Your task to perform on an android device: Show me productivity apps on the Play Store Image 0: 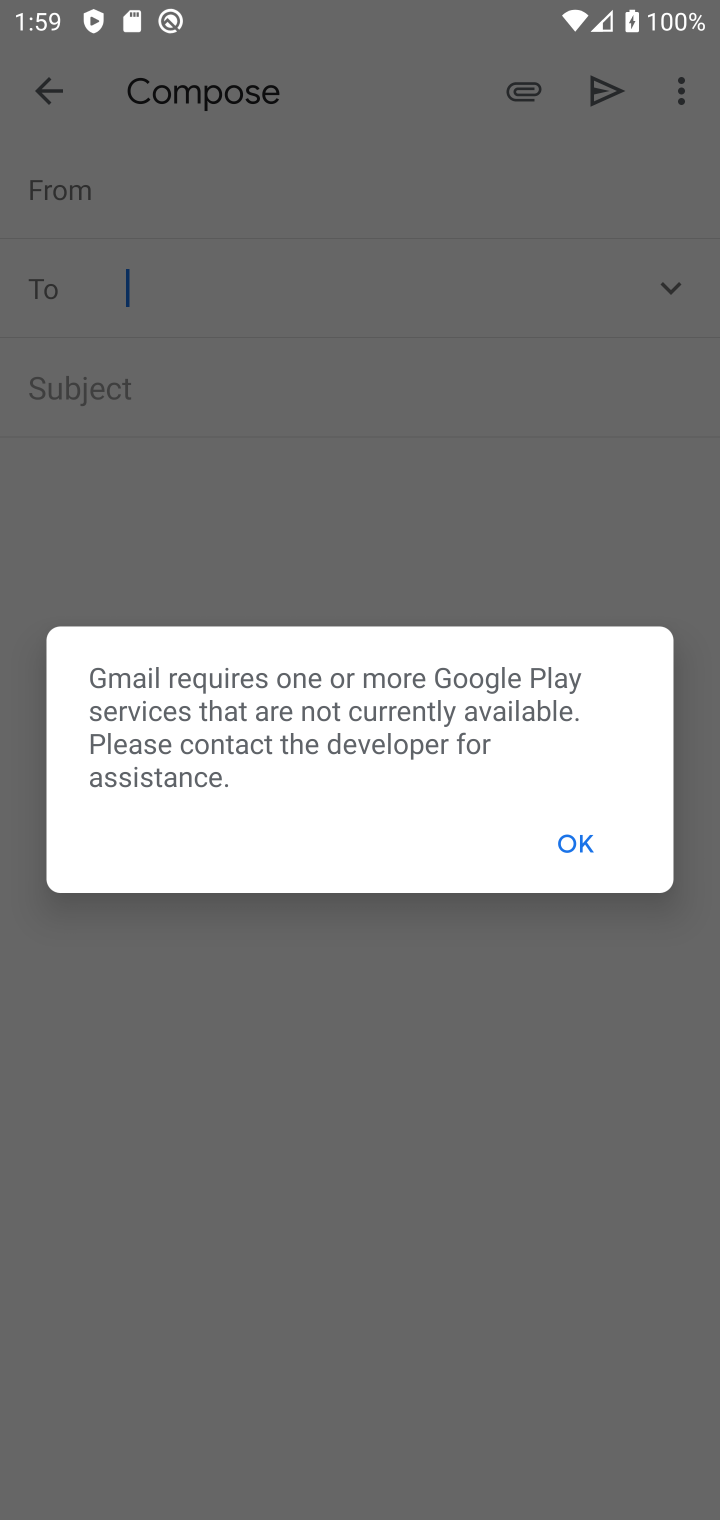
Step 0: click (33, 106)
Your task to perform on an android device: Show me productivity apps on the Play Store Image 1: 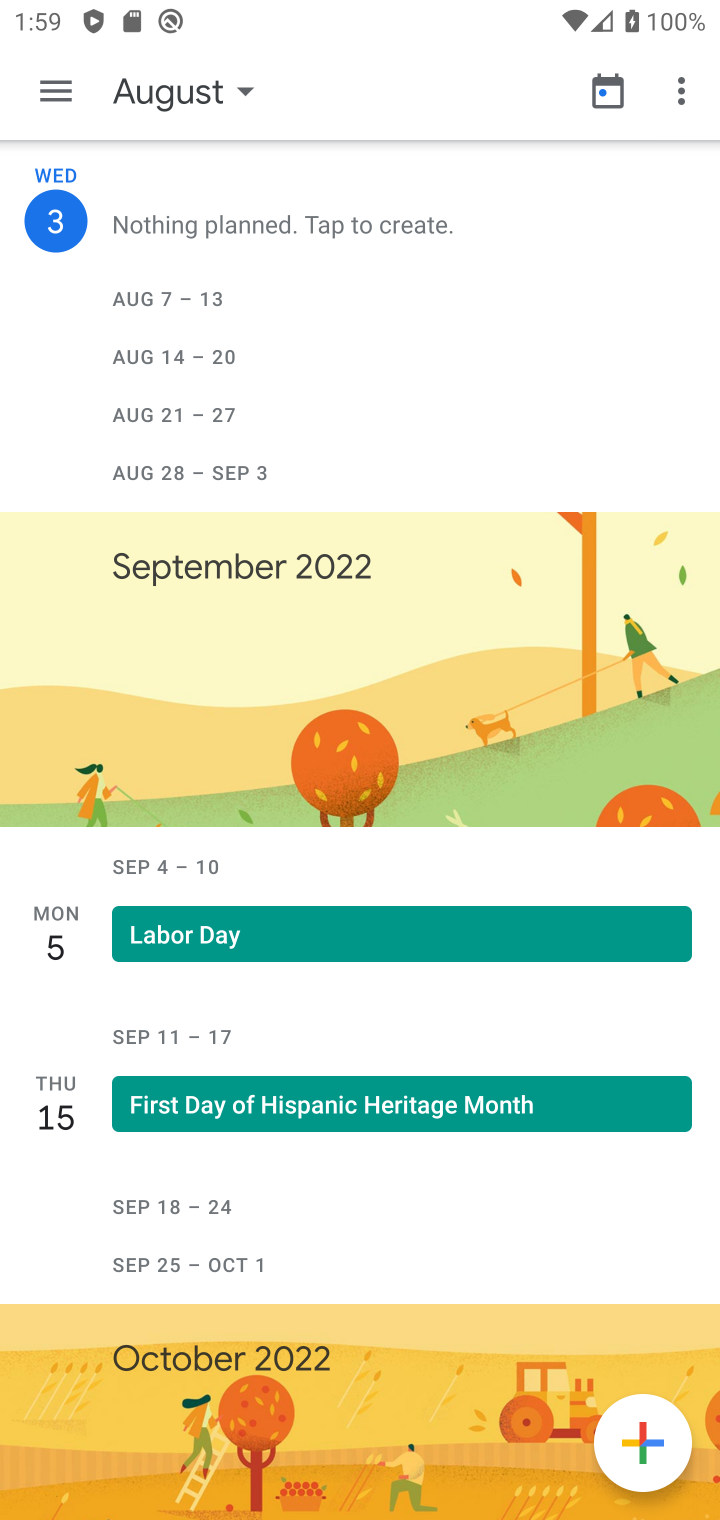
Step 1: press back button
Your task to perform on an android device: Show me productivity apps on the Play Store Image 2: 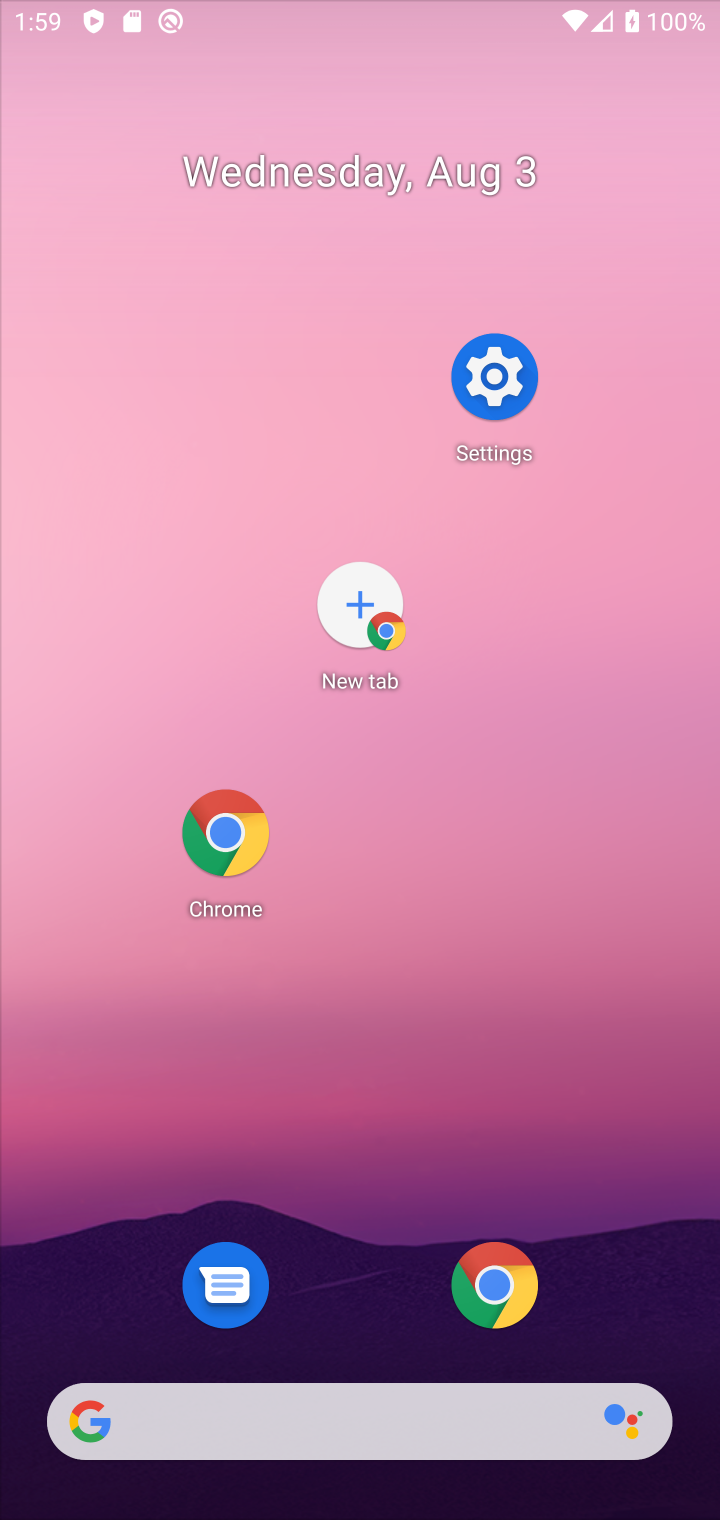
Step 2: press home button
Your task to perform on an android device: Show me productivity apps on the Play Store Image 3: 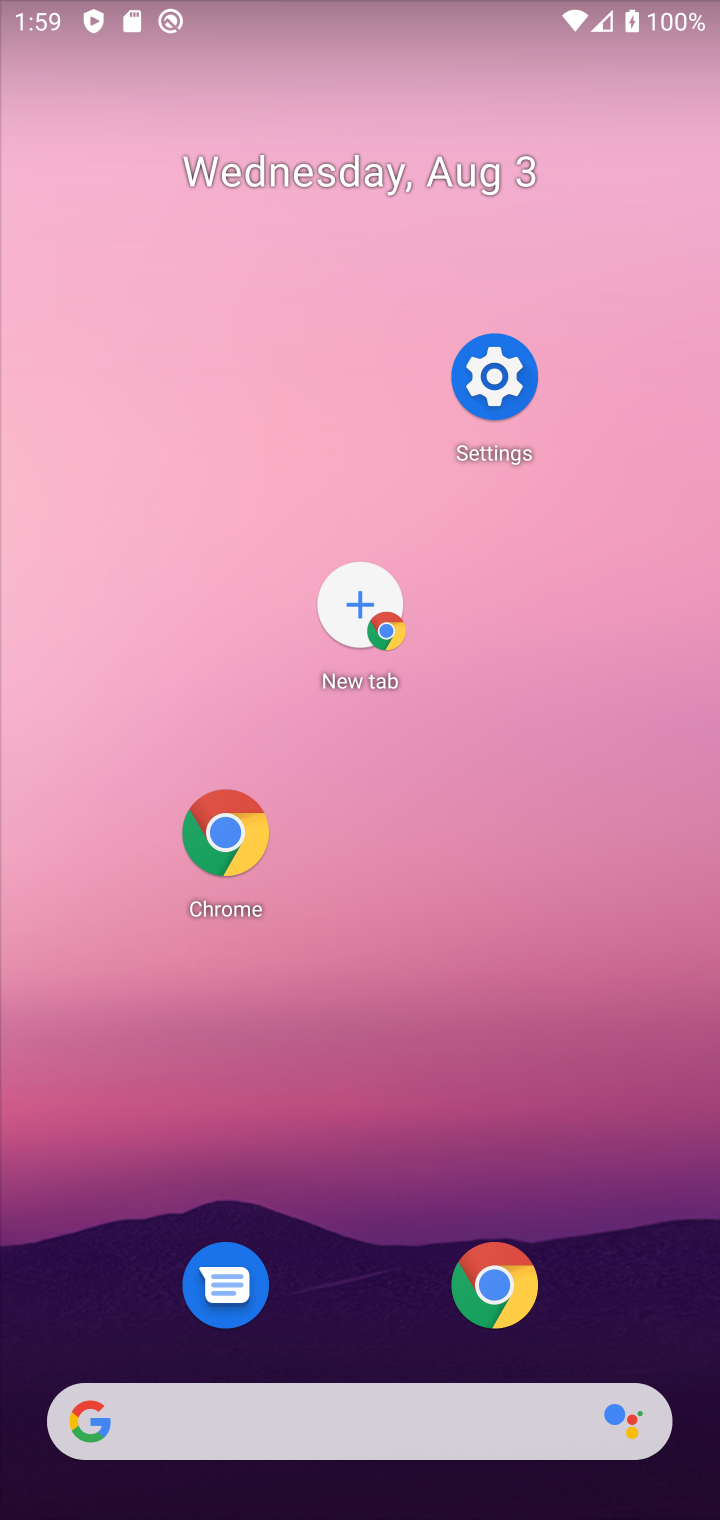
Step 3: click (230, 379)
Your task to perform on an android device: Show me productivity apps on the Play Store Image 4: 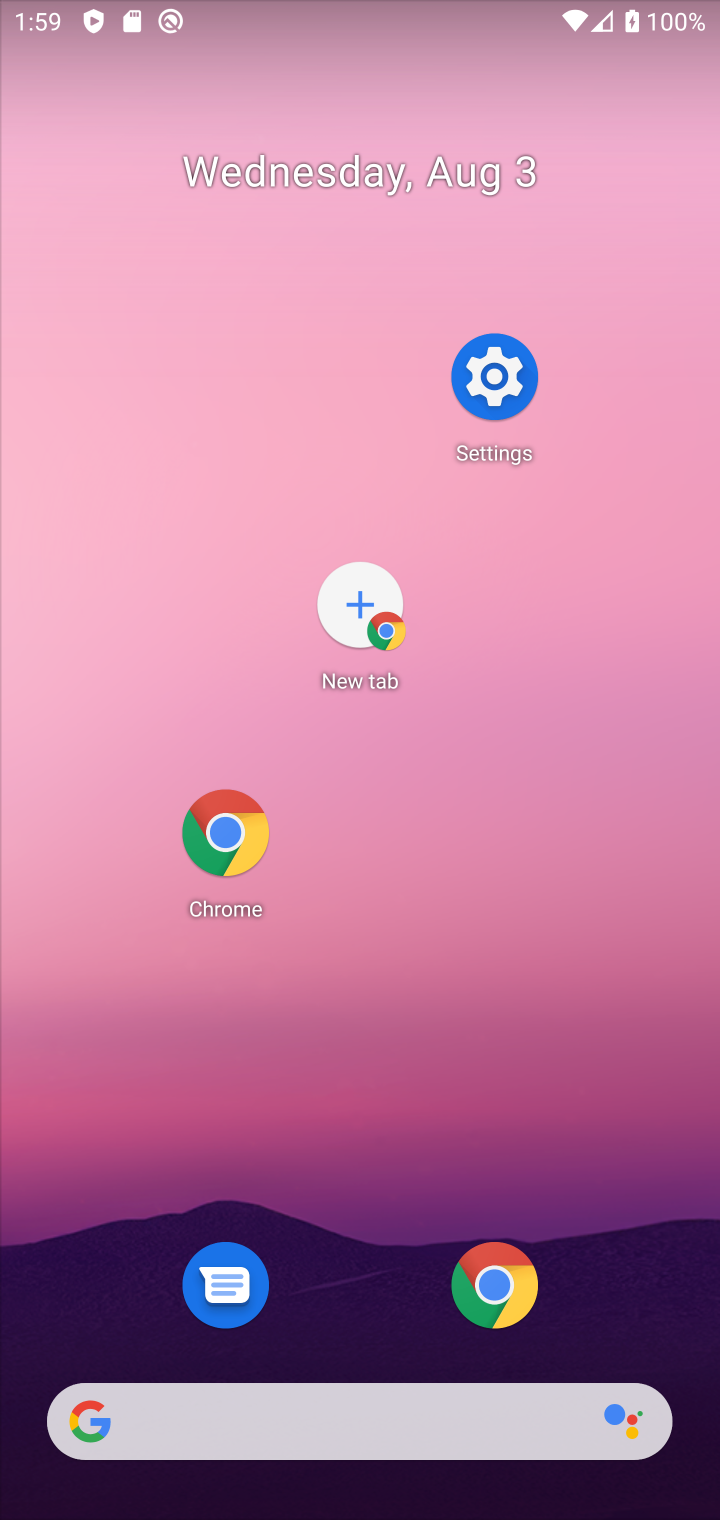
Step 4: drag from (403, 826) to (295, 396)
Your task to perform on an android device: Show me productivity apps on the Play Store Image 5: 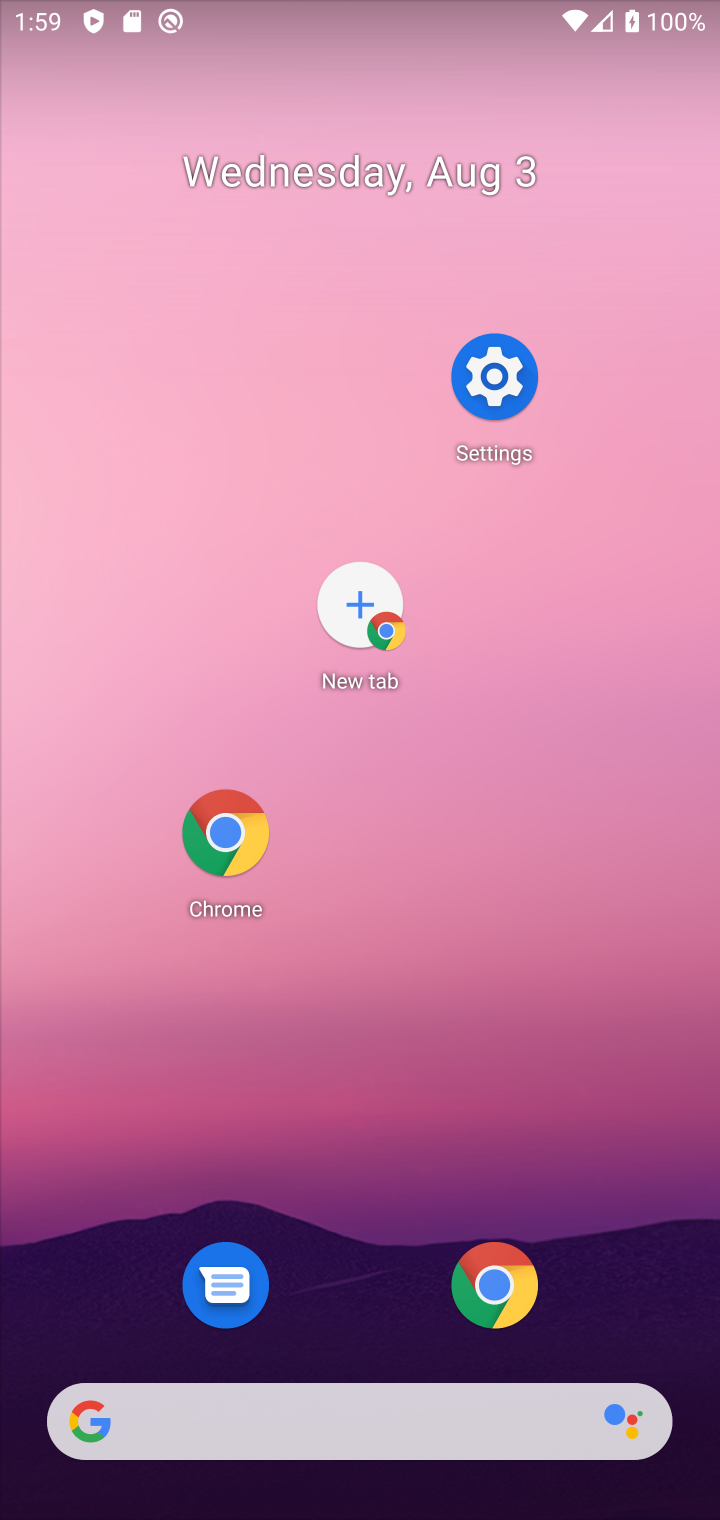
Step 5: drag from (264, 230) to (261, 331)
Your task to perform on an android device: Show me productivity apps on the Play Store Image 6: 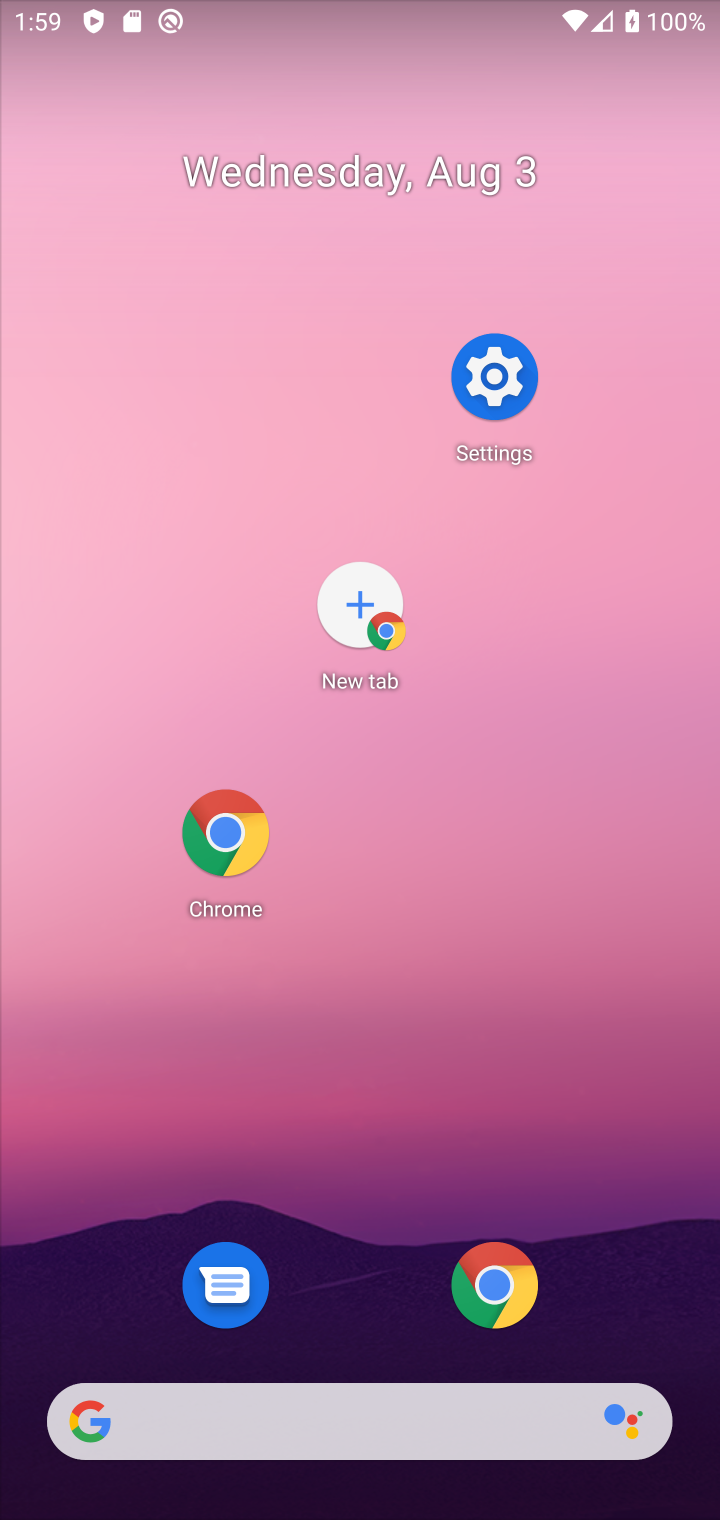
Step 6: drag from (330, 371) to (348, 496)
Your task to perform on an android device: Show me productivity apps on the Play Store Image 7: 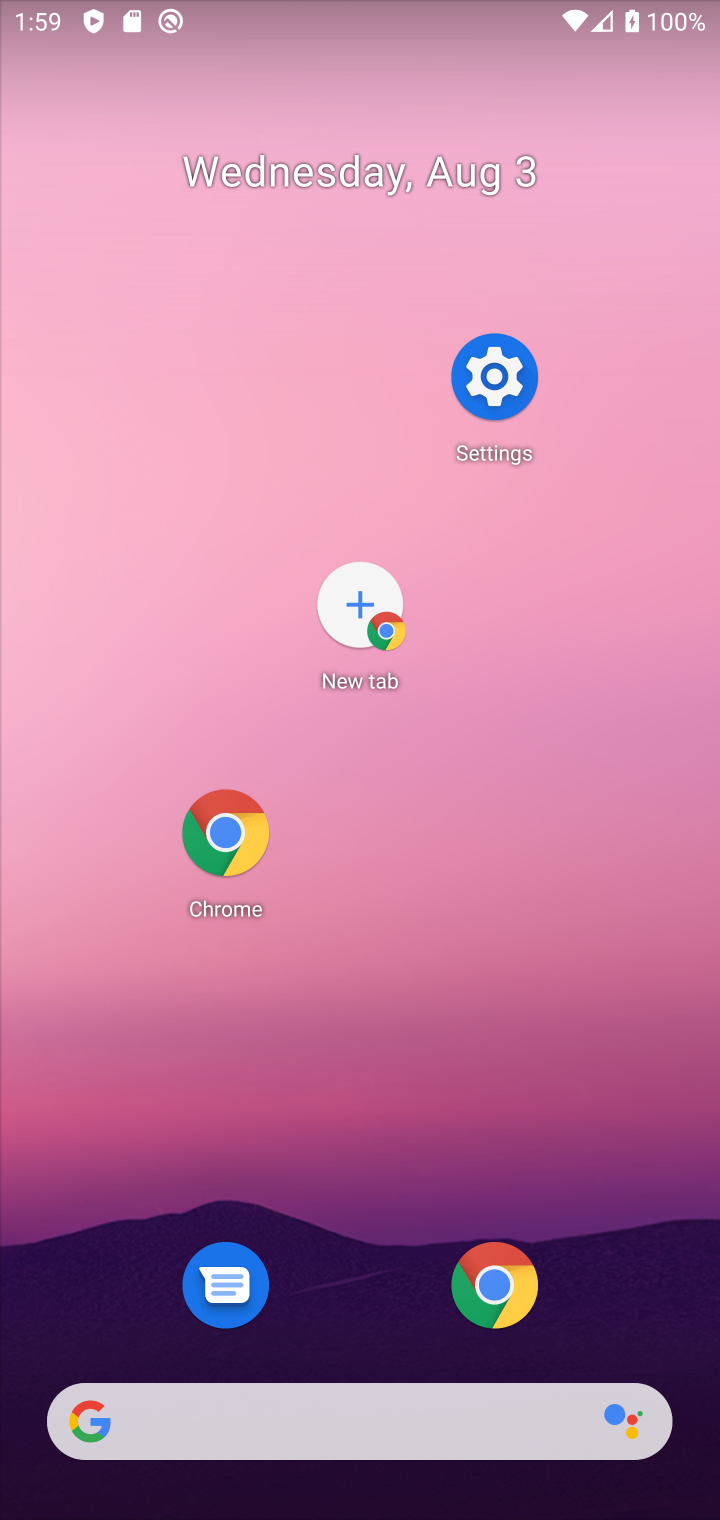
Step 7: drag from (353, 1055) to (286, 732)
Your task to perform on an android device: Show me productivity apps on the Play Store Image 8: 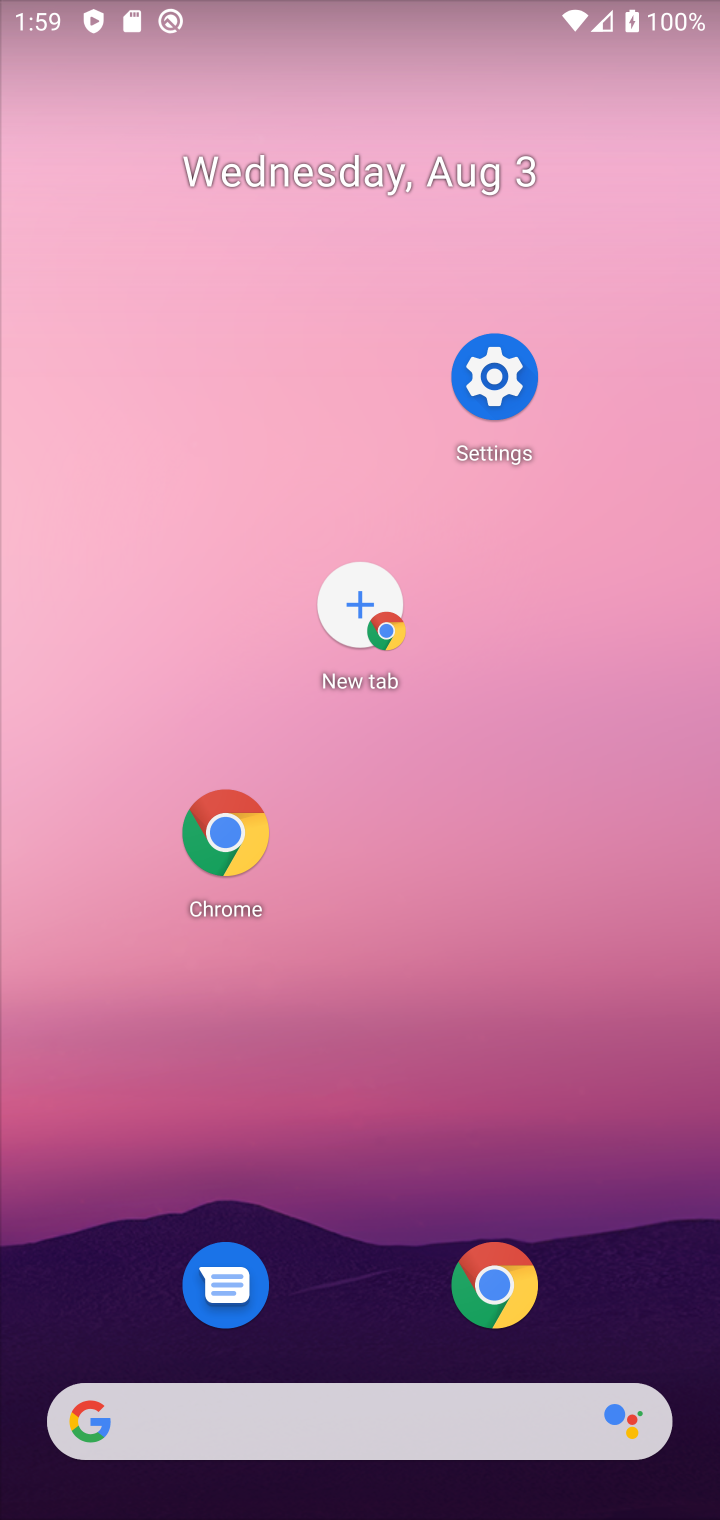
Step 8: drag from (296, 744) to (211, 358)
Your task to perform on an android device: Show me productivity apps on the Play Store Image 9: 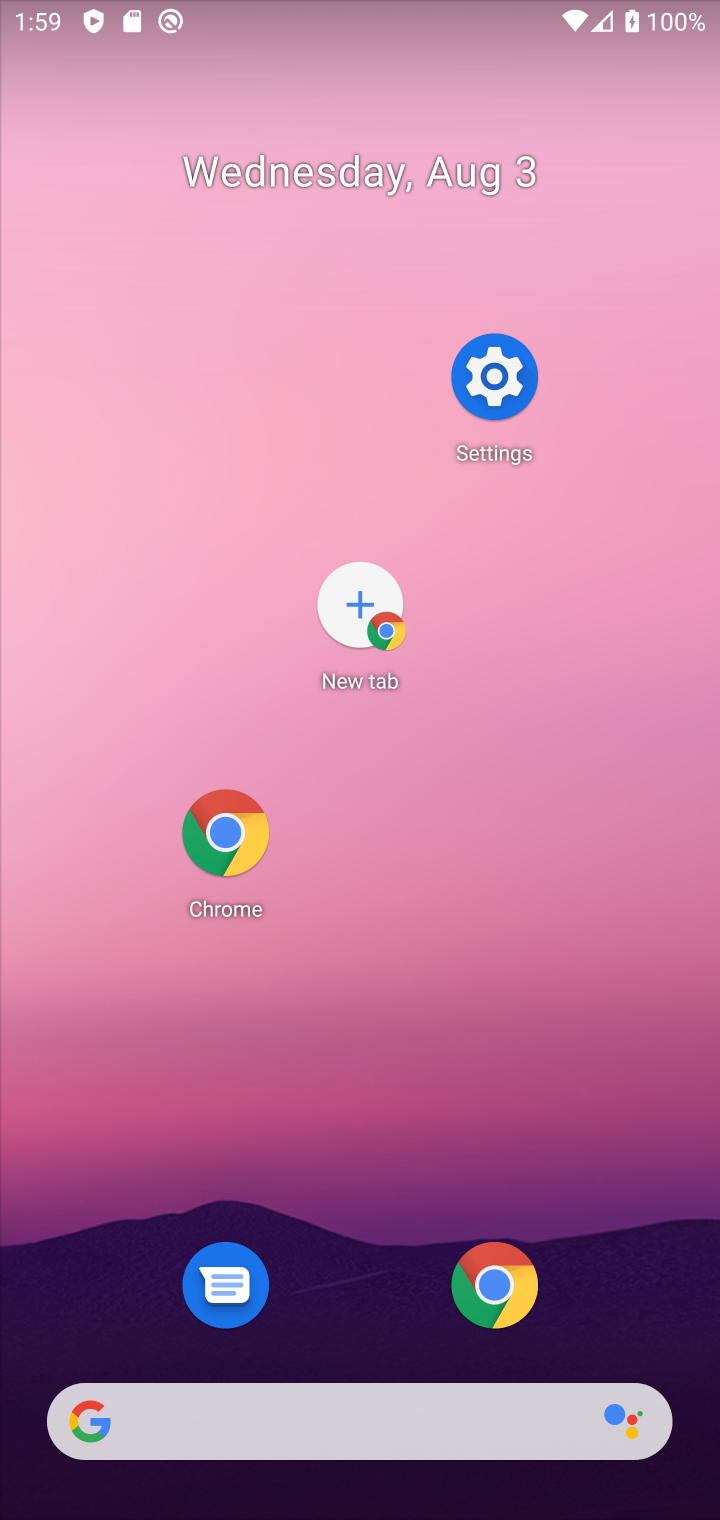
Step 9: drag from (336, 1063) to (194, 301)
Your task to perform on an android device: Show me productivity apps on the Play Store Image 10: 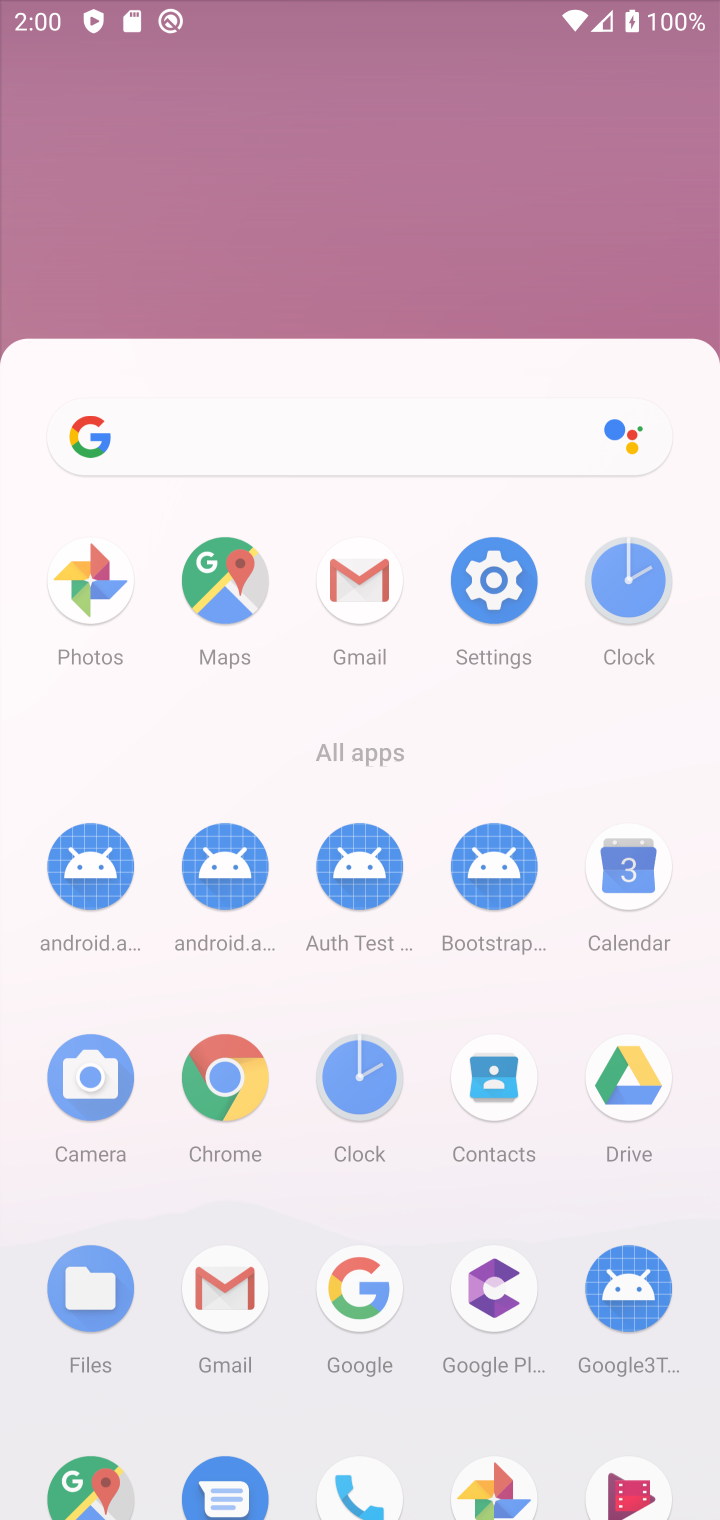
Step 10: click (264, 367)
Your task to perform on an android device: Show me productivity apps on the Play Store Image 11: 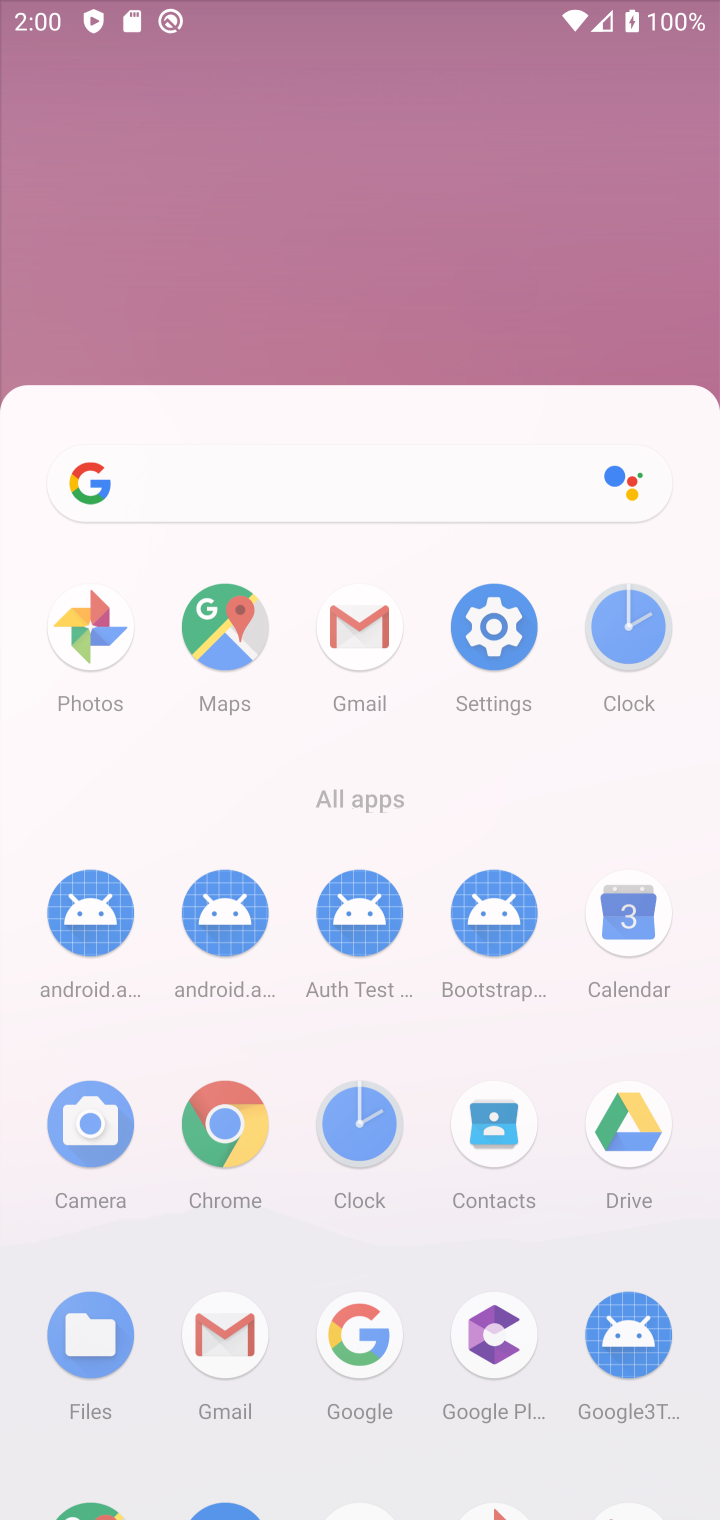
Step 11: drag from (377, 943) to (347, 510)
Your task to perform on an android device: Show me productivity apps on the Play Store Image 12: 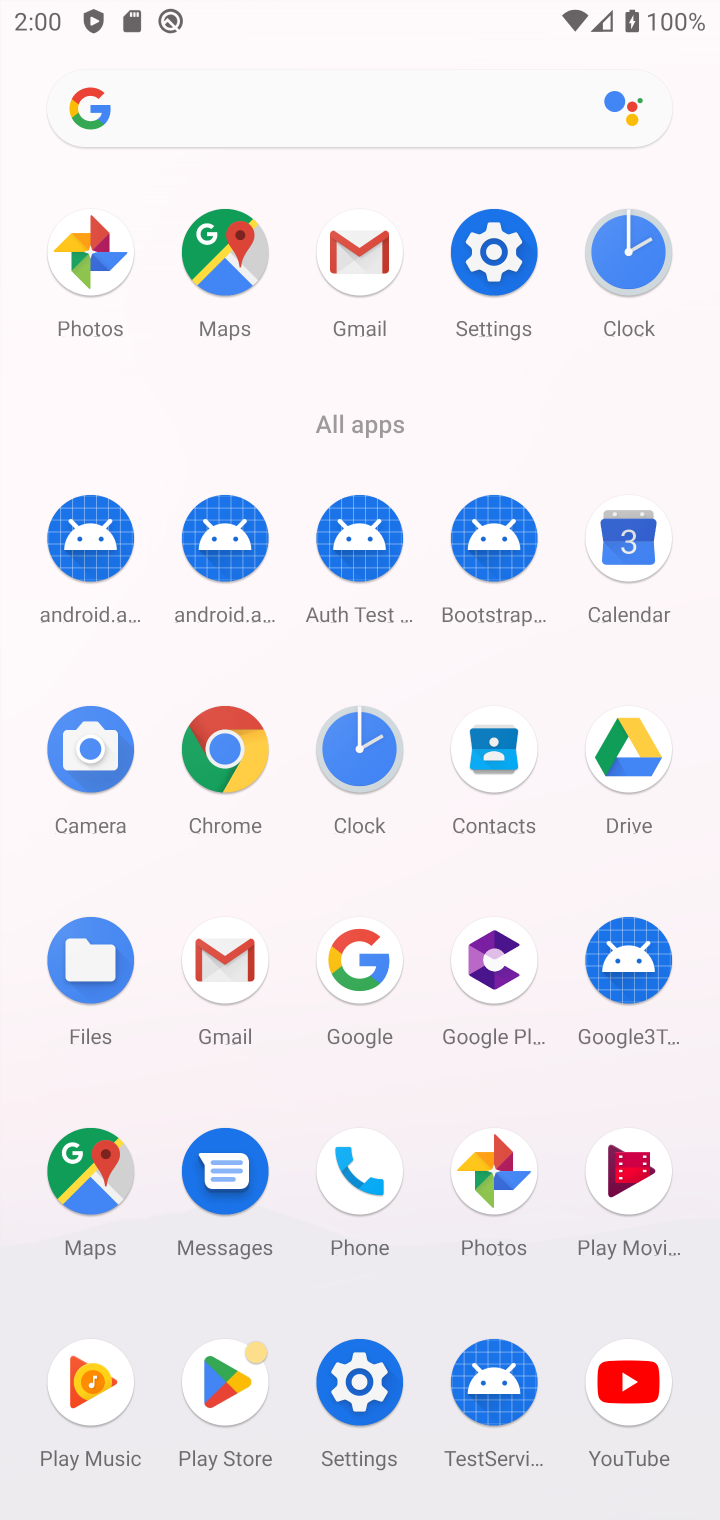
Step 12: click (214, 1412)
Your task to perform on an android device: Show me productivity apps on the Play Store Image 13: 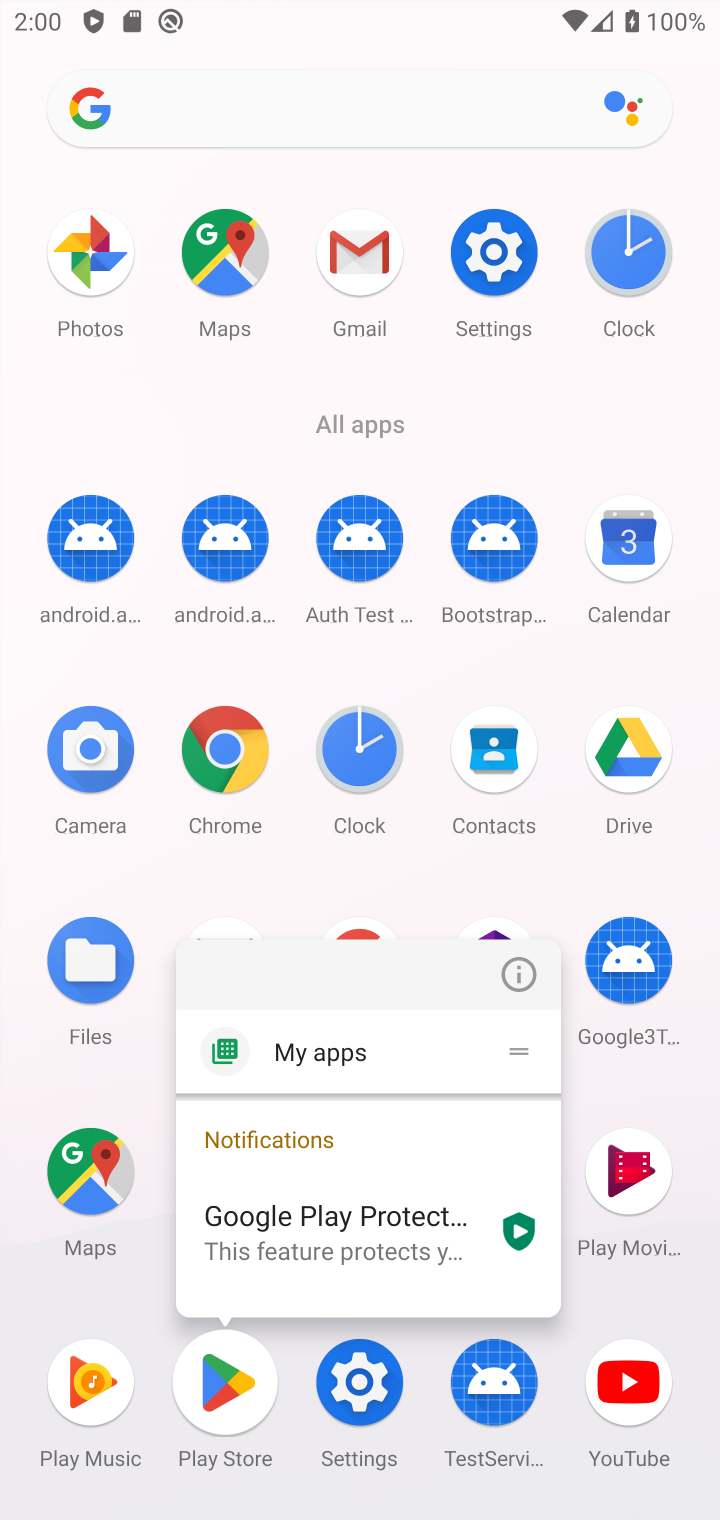
Step 13: click (216, 1410)
Your task to perform on an android device: Show me productivity apps on the Play Store Image 14: 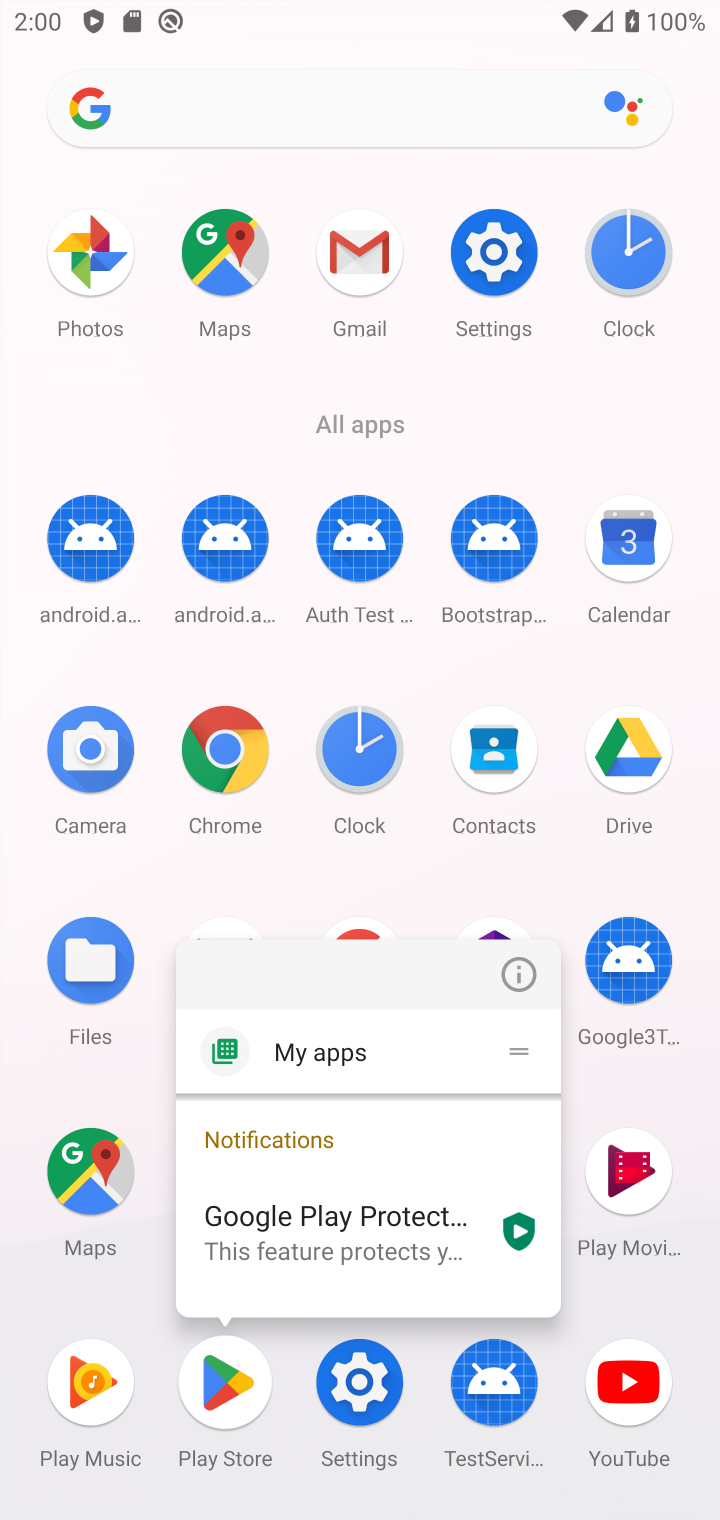
Step 14: click (230, 1406)
Your task to perform on an android device: Show me productivity apps on the Play Store Image 15: 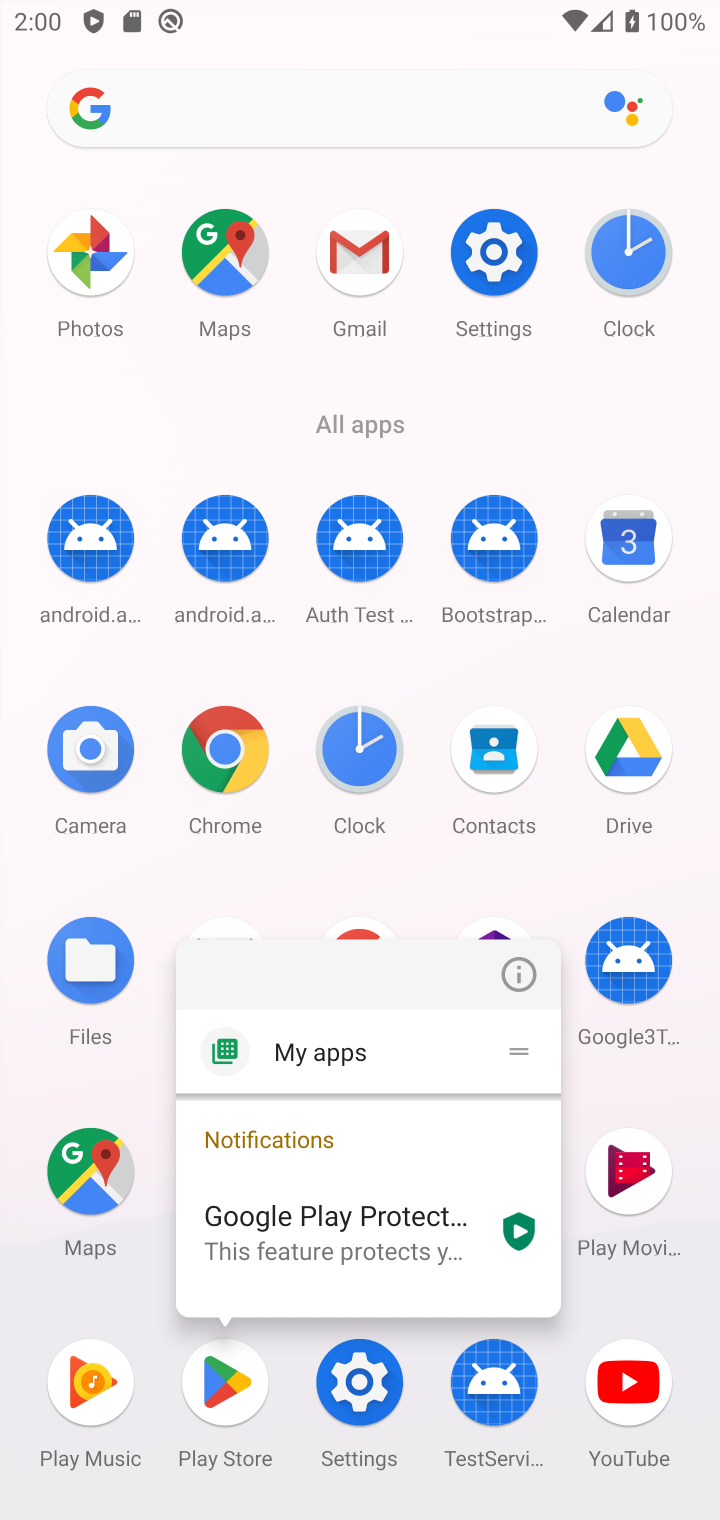
Step 15: click (228, 1404)
Your task to perform on an android device: Show me productivity apps on the Play Store Image 16: 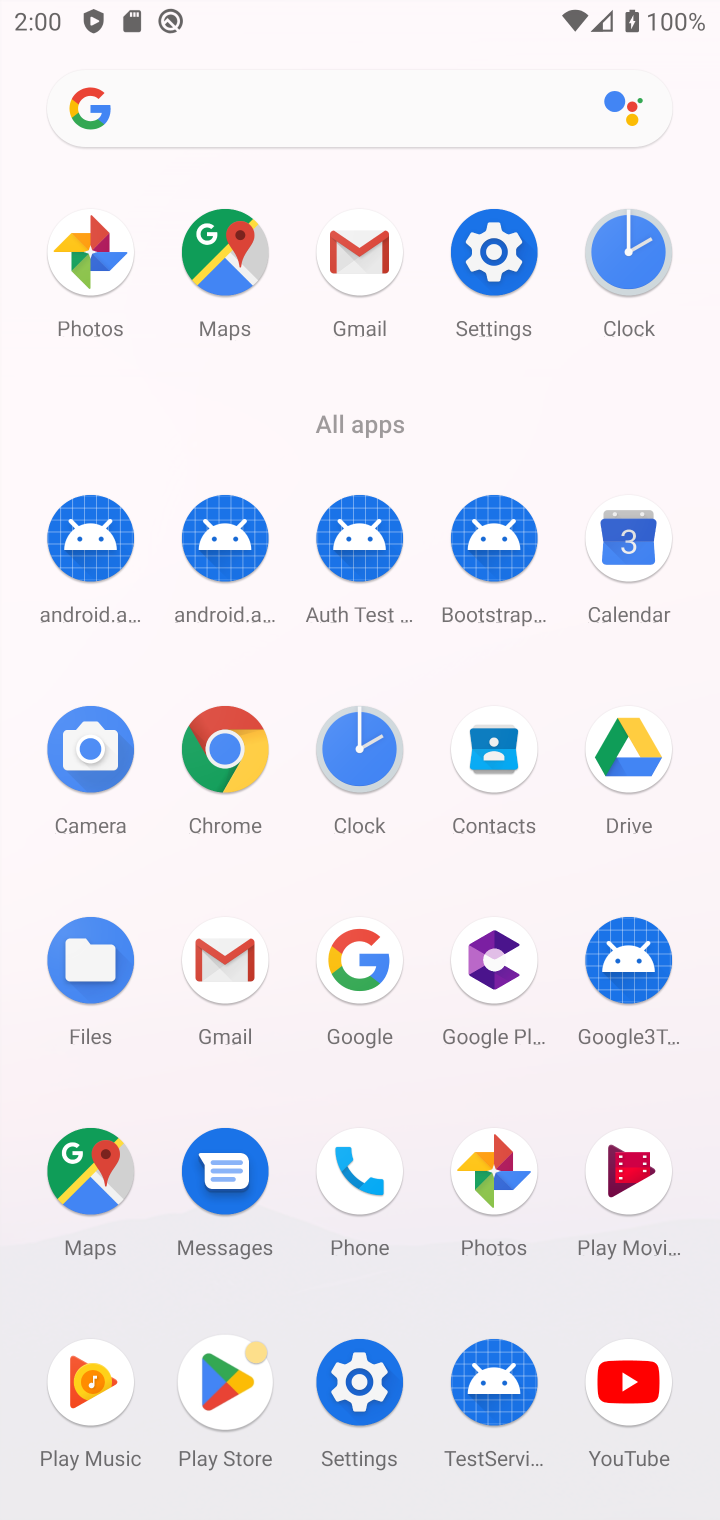
Step 16: click (219, 1416)
Your task to perform on an android device: Show me productivity apps on the Play Store Image 17: 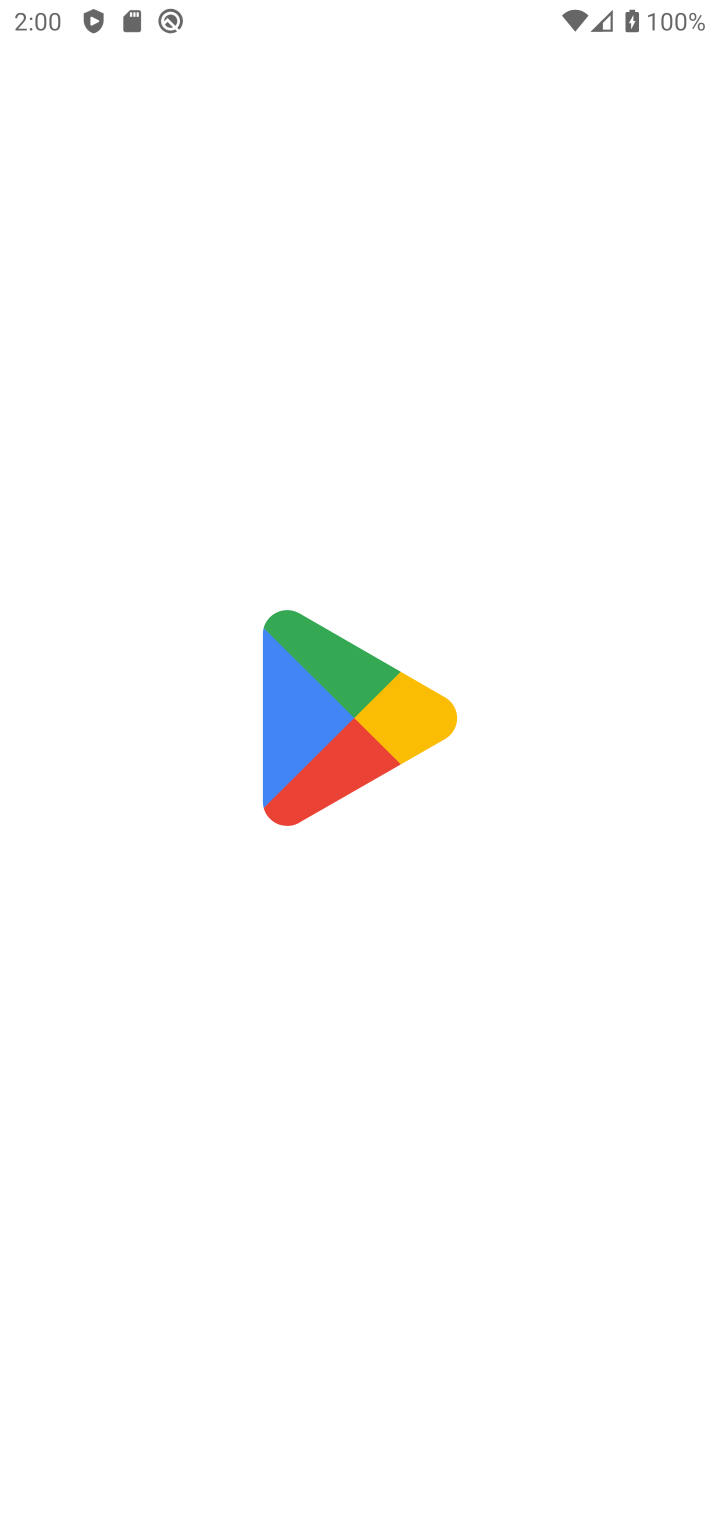
Step 17: click (219, 1416)
Your task to perform on an android device: Show me productivity apps on the Play Store Image 18: 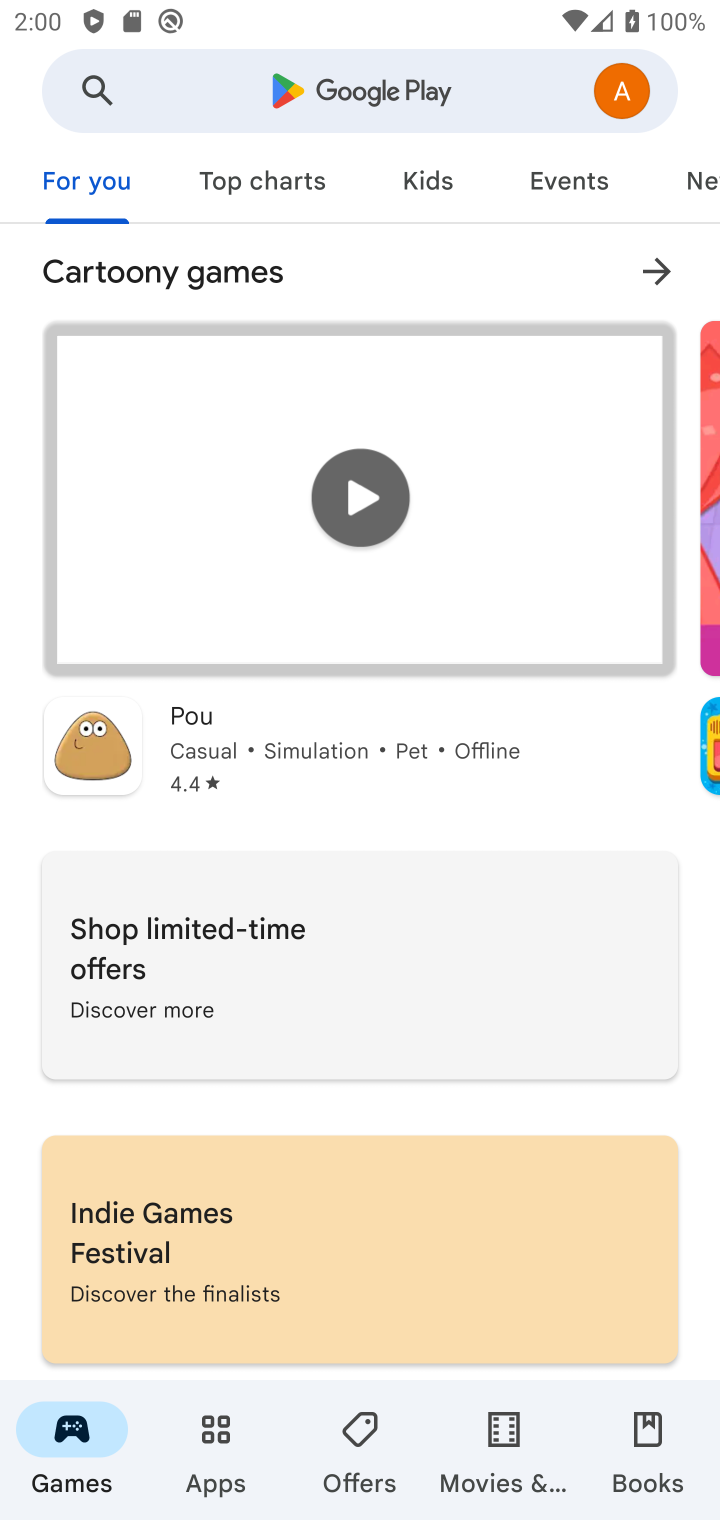
Step 18: click (352, 88)
Your task to perform on an android device: Show me productivity apps on the Play Store Image 19: 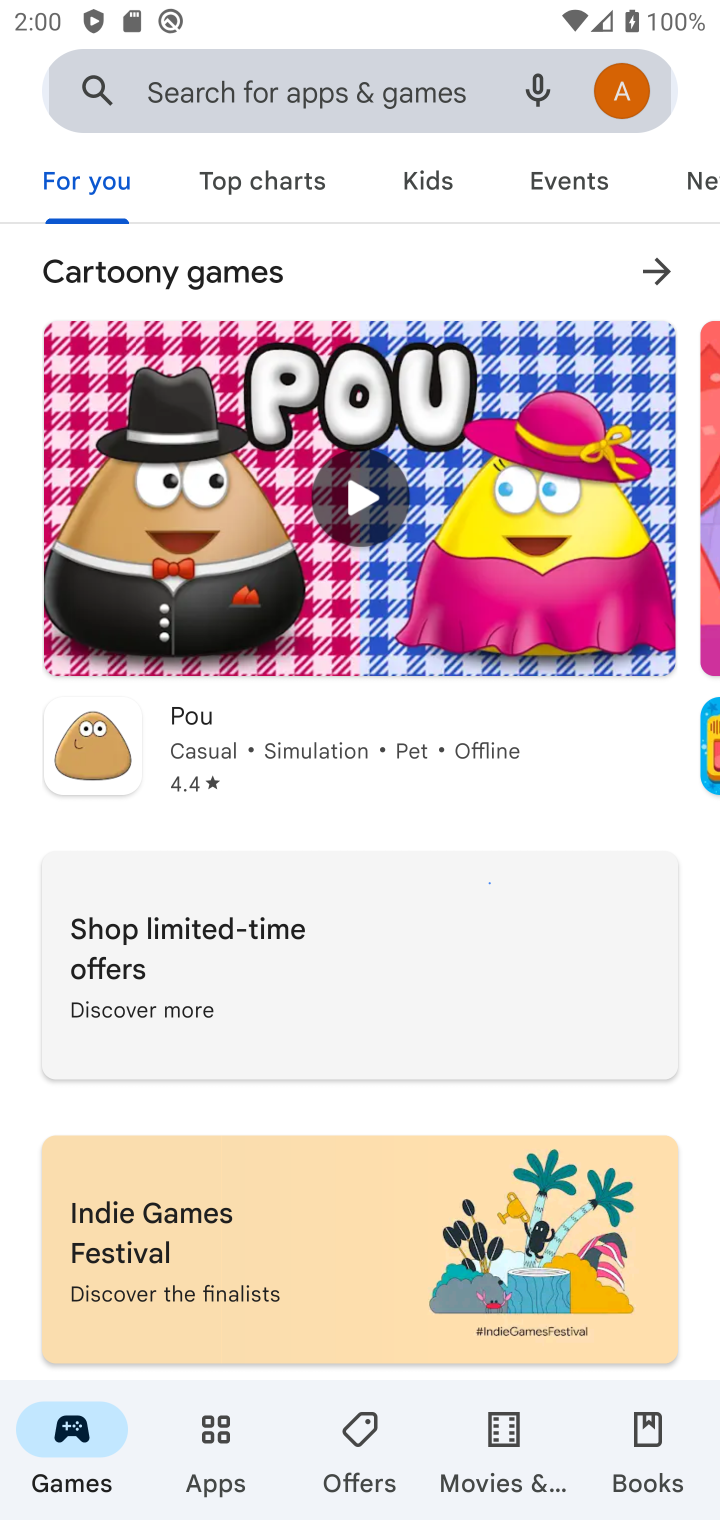
Step 19: click (346, 88)
Your task to perform on an android device: Show me productivity apps on the Play Store Image 20: 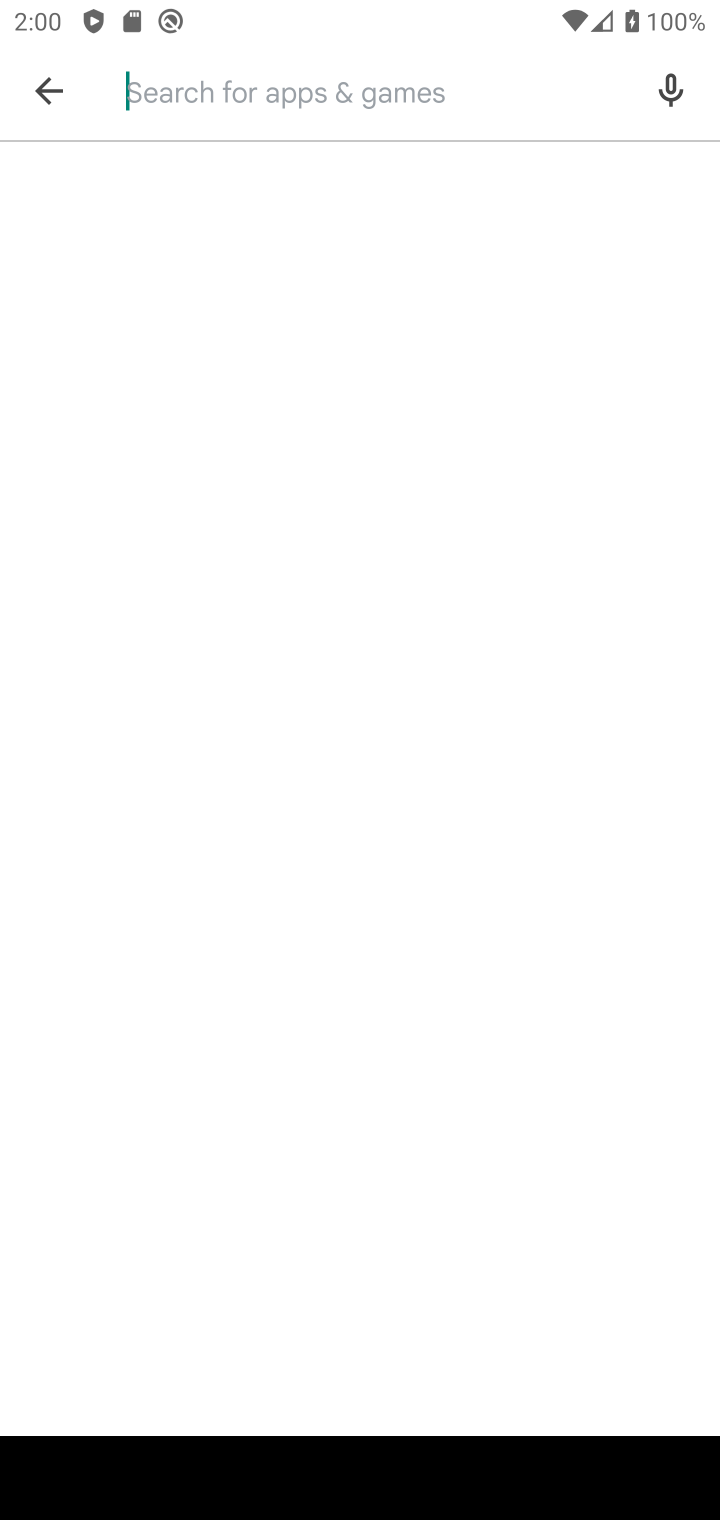
Step 20: type "productivity apps"
Your task to perform on an android device: Show me productivity apps on the Play Store Image 21: 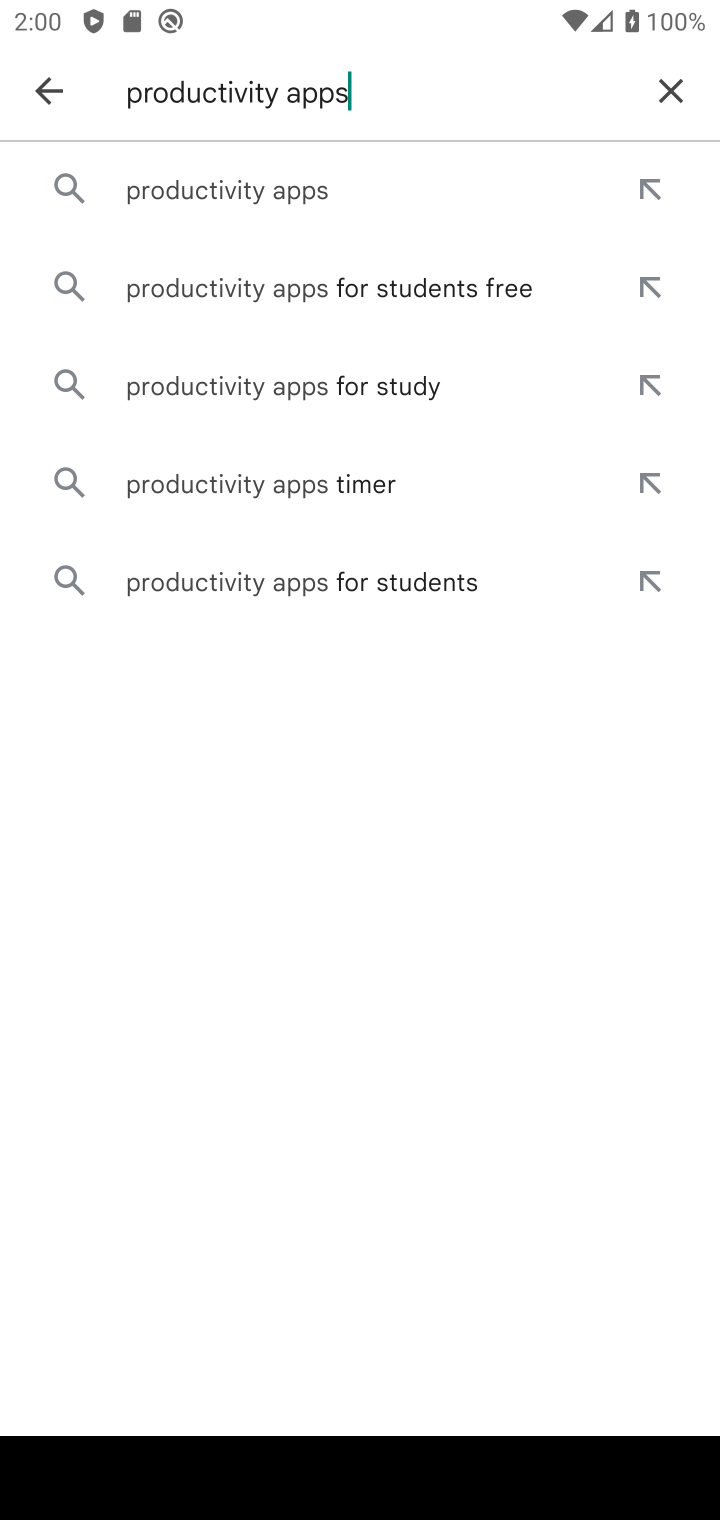
Step 21: click (257, 202)
Your task to perform on an android device: Show me productivity apps on the Play Store Image 22: 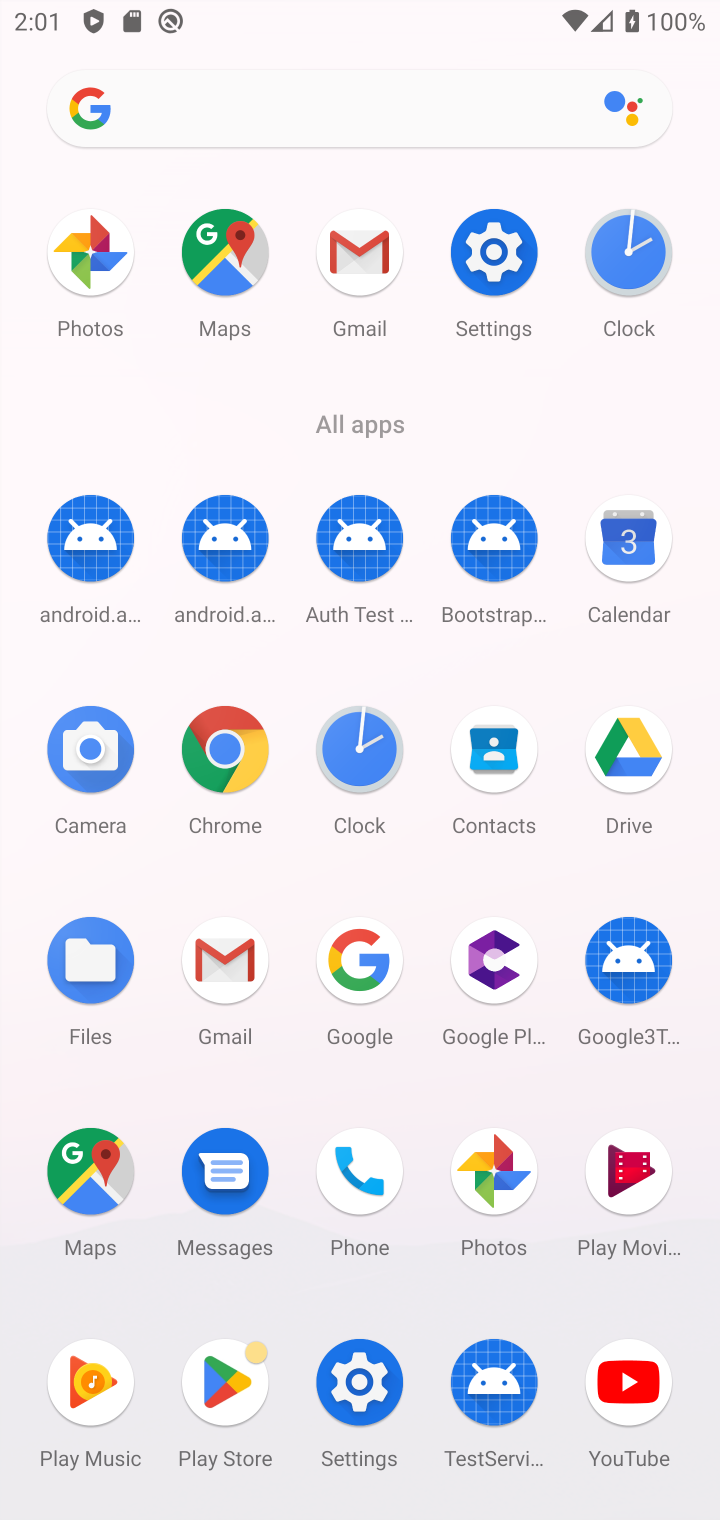
Step 22: task complete